Your task to perform on an android device: find snoozed emails in the gmail app Image 0: 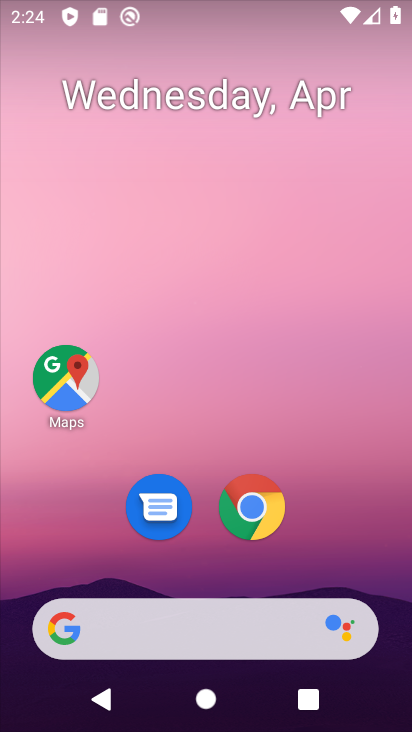
Step 0: drag from (372, 544) to (303, 48)
Your task to perform on an android device: find snoozed emails in the gmail app Image 1: 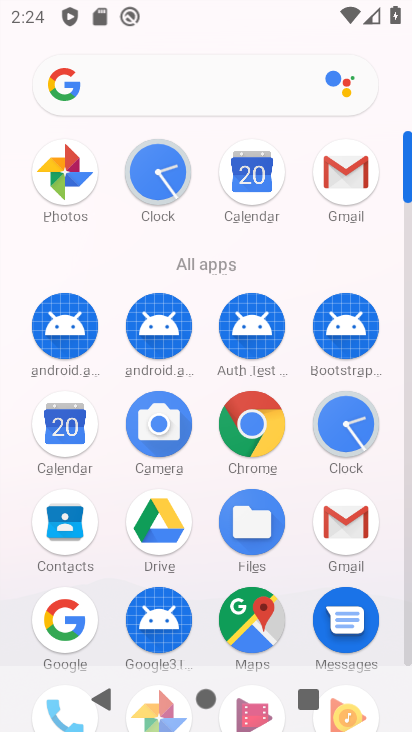
Step 1: click (346, 171)
Your task to perform on an android device: find snoozed emails in the gmail app Image 2: 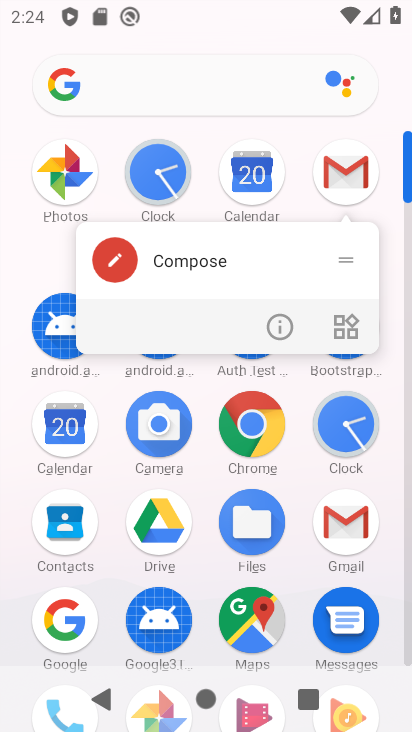
Step 2: click (346, 172)
Your task to perform on an android device: find snoozed emails in the gmail app Image 3: 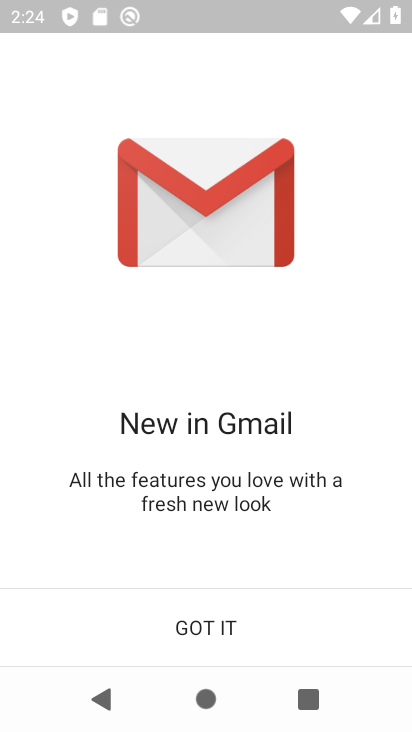
Step 3: click (168, 616)
Your task to perform on an android device: find snoozed emails in the gmail app Image 4: 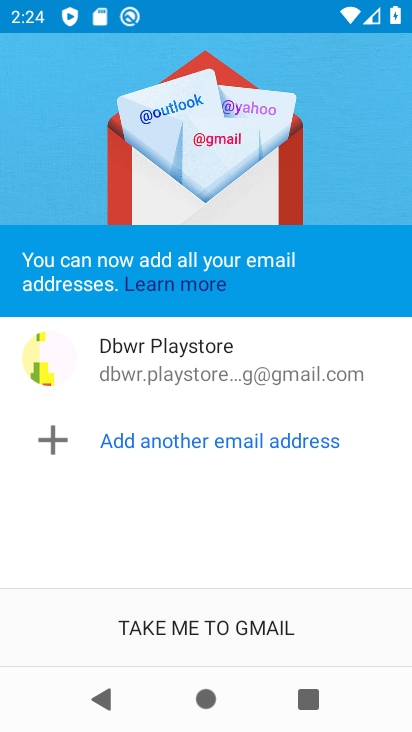
Step 4: click (168, 616)
Your task to perform on an android device: find snoozed emails in the gmail app Image 5: 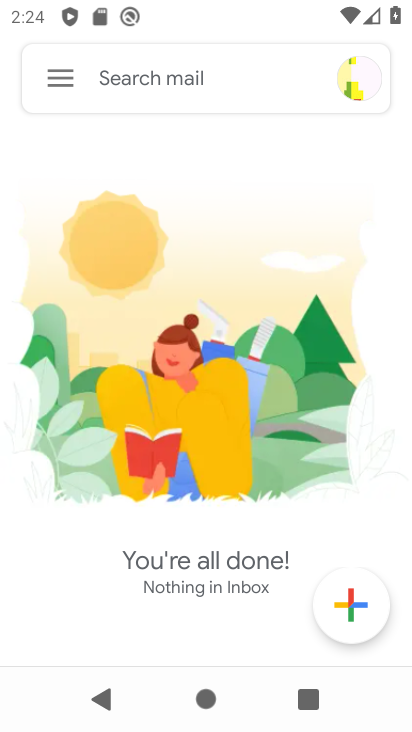
Step 5: click (66, 77)
Your task to perform on an android device: find snoozed emails in the gmail app Image 6: 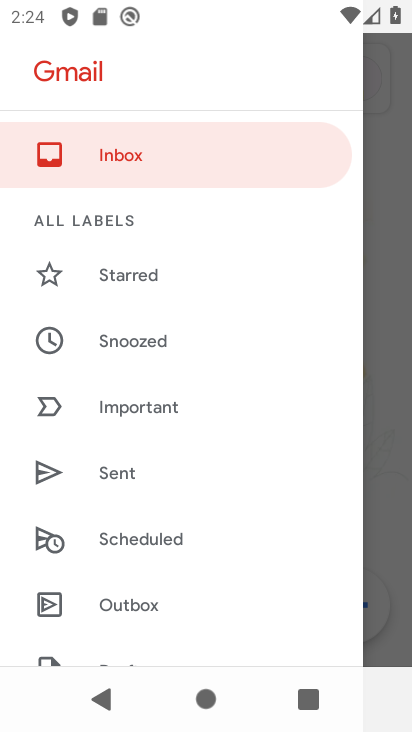
Step 6: click (126, 327)
Your task to perform on an android device: find snoozed emails in the gmail app Image 7: 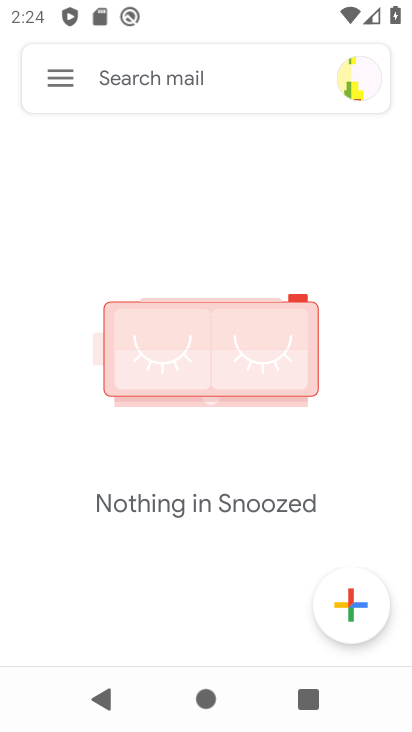
Step 7: task complete